Your task to perform on an android device: turn on showing notifications on the lock screen Image 0: 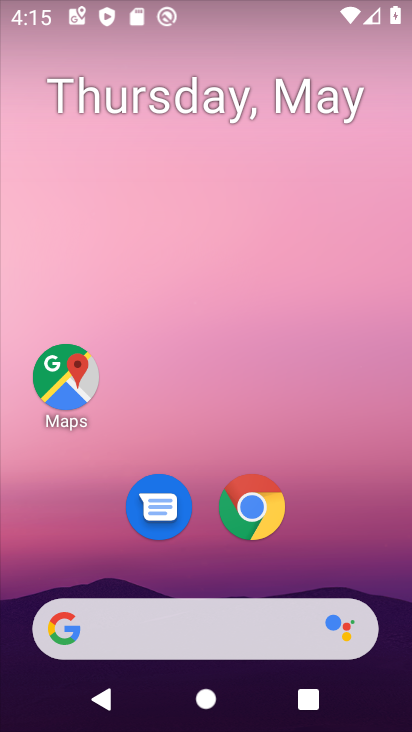
Step 0: drag from (185, 571) to (302, 39)
Your task to perform on an android device: turn on showing notifications on the lock screen Image 1: 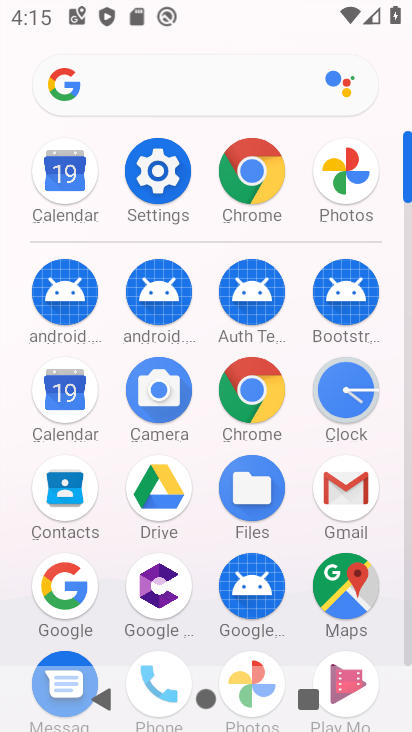
Step 1: click (136, 180)
Your task to perform on an android device: turn on showing notifications on the lock screen Image 2: 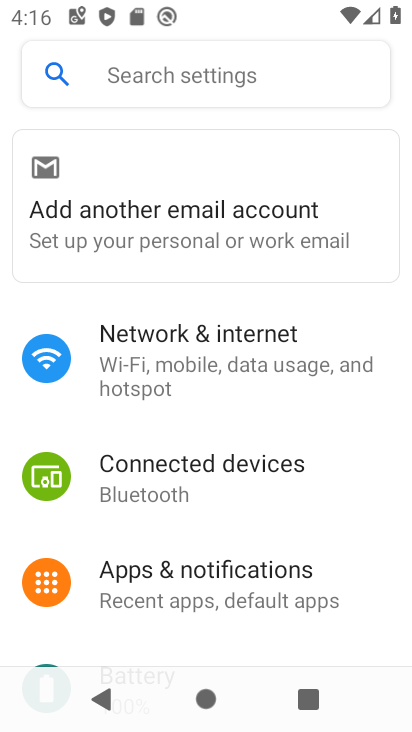
Step 2: click (159, 537)
Your task to perform on an android device: turn on showing notifications on the lock screen Image 3: 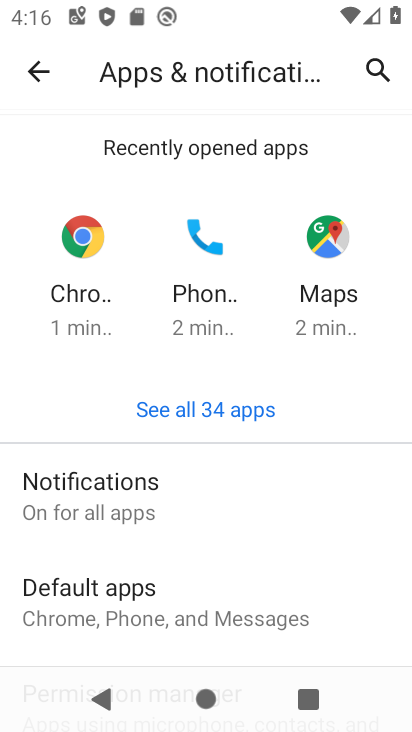
Step 3: drag from (142, 586) to (164, 439)
Your task to perform on an android device: turn on showing notifications on the lock screen Image 4: 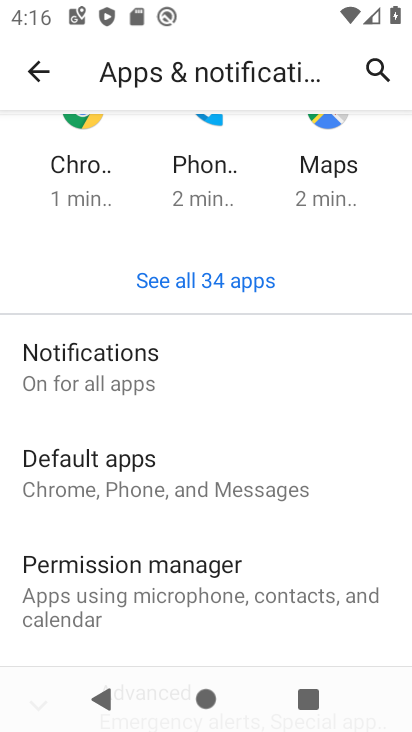
Step 4: click (97, 366)
Your task to perform on an android device: turn on showing notifications on the lock screen Image 5: 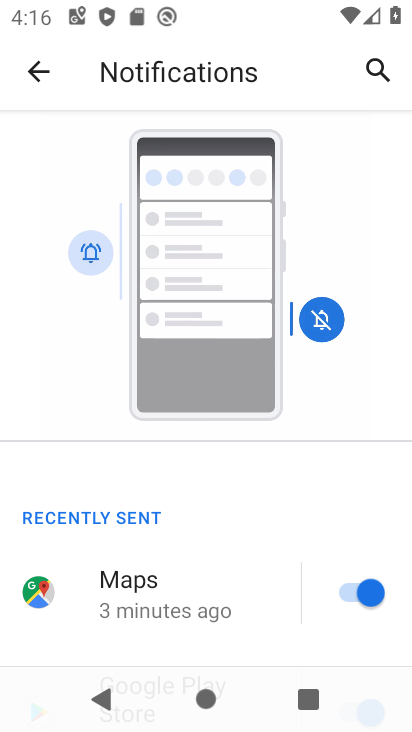
Step 5: drag from (238, 607) to (241, 324)
Your task to perform on an android device: turn on showing notifications on the lock screen Image 6: 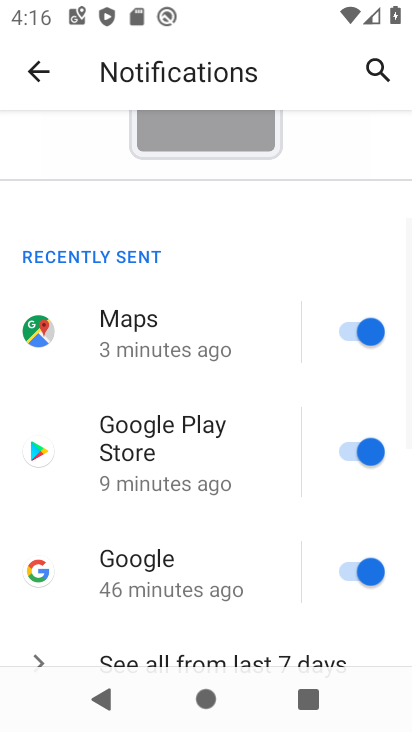
Step 6: drag from (162, 601) to (156, 278)
Your task to perform on an android device: turn on showing notifications on the lock screen Image 7: 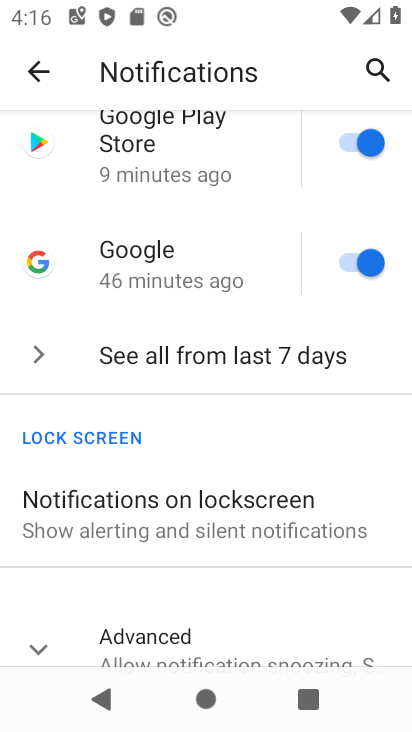
Step 7: click (128, 516)
Your task to perform on an android device: turn on showing notifications on the lock screen Image 8: 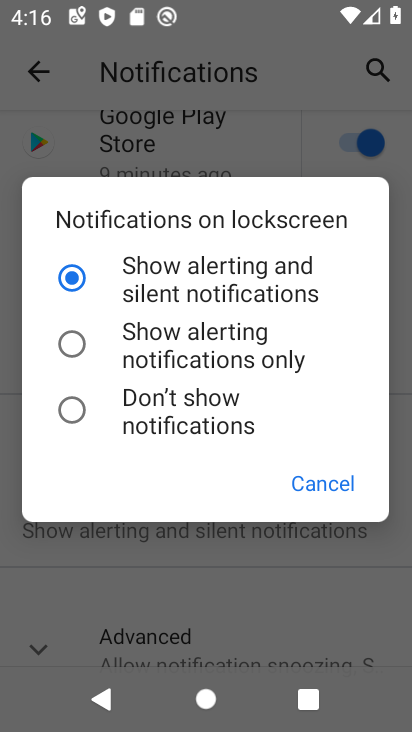
Step 8: click (135, 286)
Your task to perform on an android device: turn on showing notifications on the lock screen Image 9: 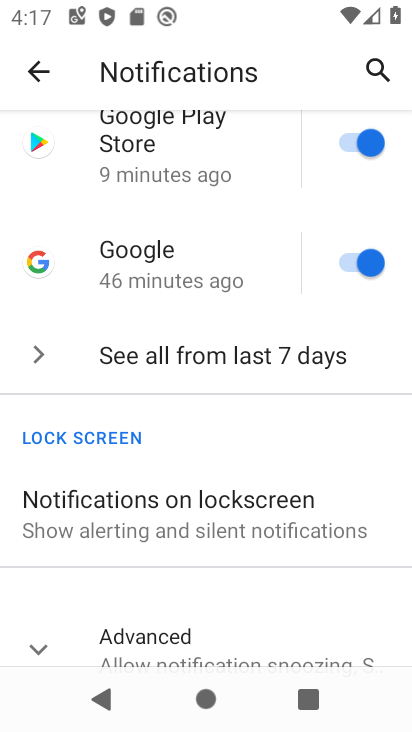
Step 9: task complete